Your task to perform on an android device: open wifi settings Image 0: 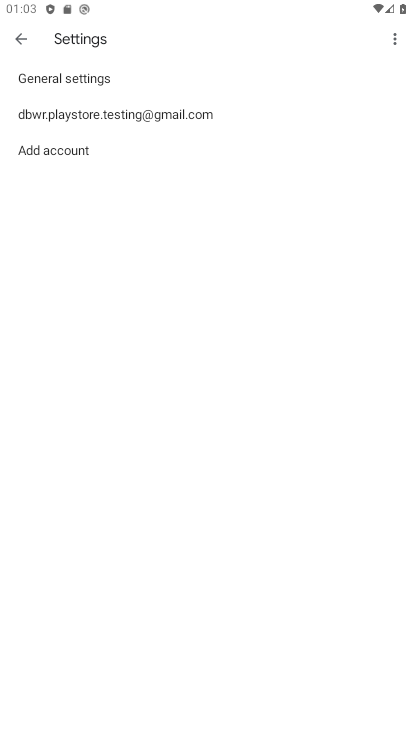
Step 0: press home button
Your task to perform on an android device: open wifi settings Image 1: 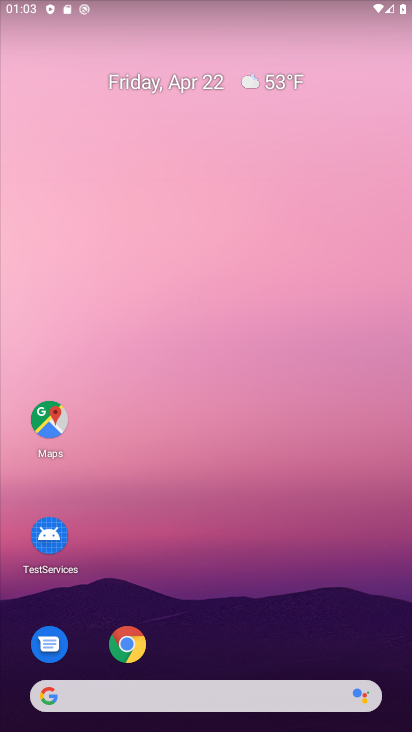
Step 1: drag from (252, 563) to (216, 171)
Your task to perform on an android device: open wifi settings Image 2: 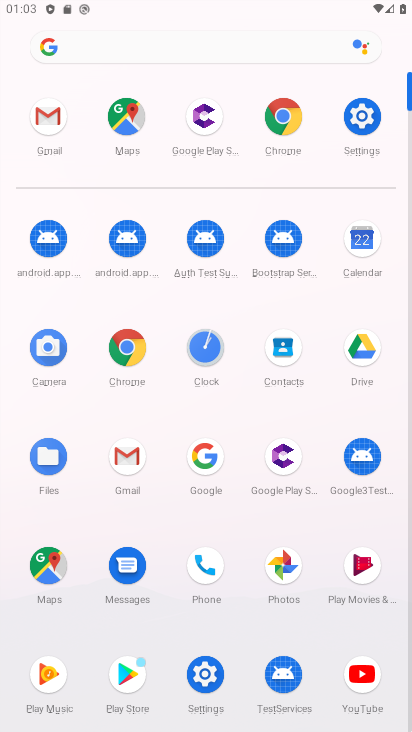
Step 2: click (369, 115)
Your task to perform on an android device: open wifi settings Image 3: 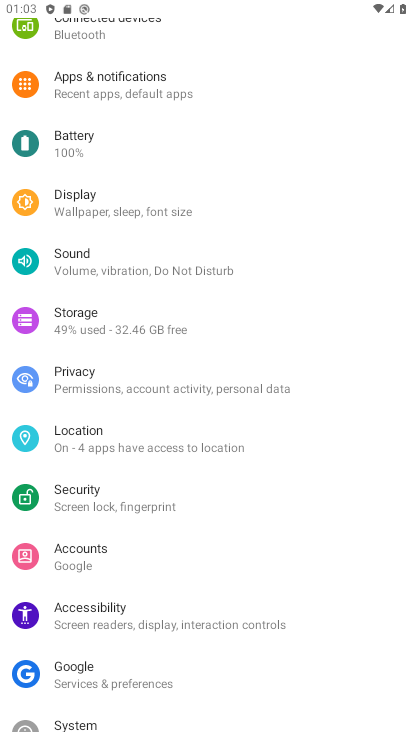
Step 3: drag from (161, 128) to (204, 607)
Your task to perform on an android device: open wifi settings Image 4: 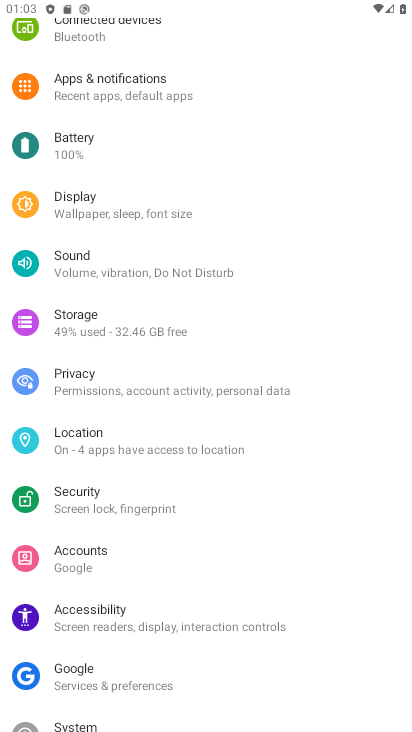
Step 4: drag from (215, 118) to (295, 609)
Your task to perform on an android device: open wifi settings Image 5: 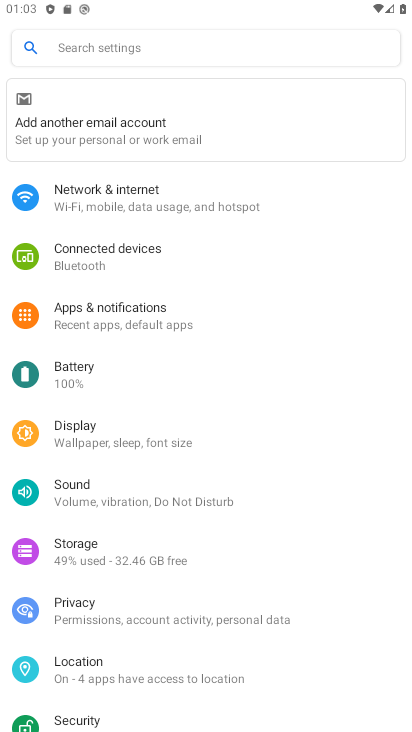
Step 5: click (171, 198)
Your task to perform on an android device: open wifi settings Image 6: 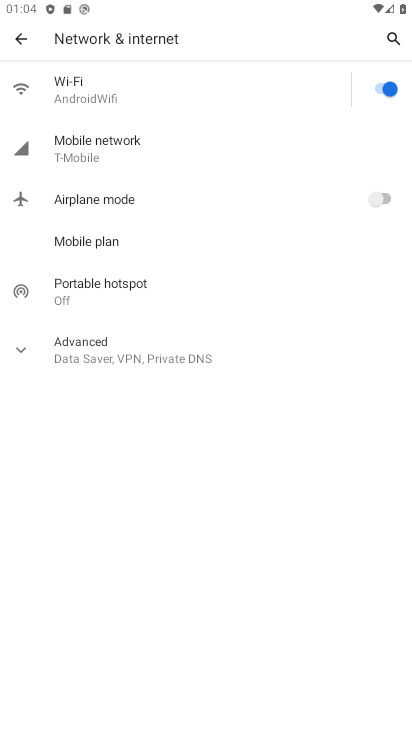
Step 6: click (127, 79)
Your task to perform on an android device: open wifi settings Image 7: 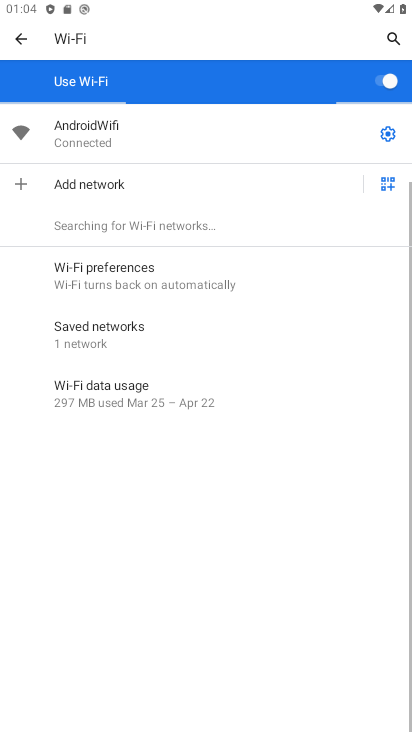
Step 7: click (387, 126)
Your task to perform on an android device: open wifi settings Image 8: 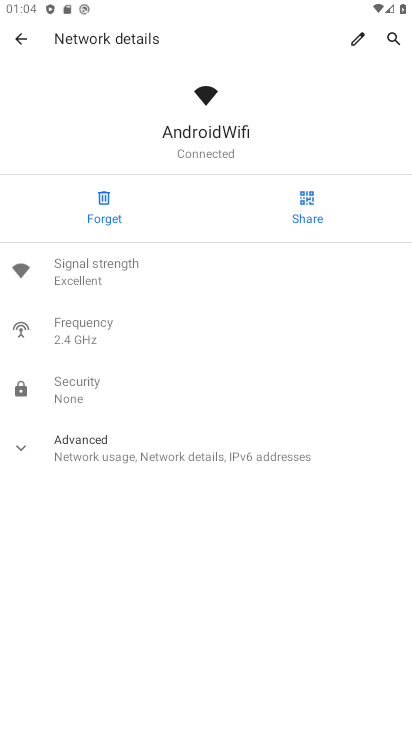
Step 8: task complete